Your task to perform on an android device: What's the news in Barbados? Image 0: 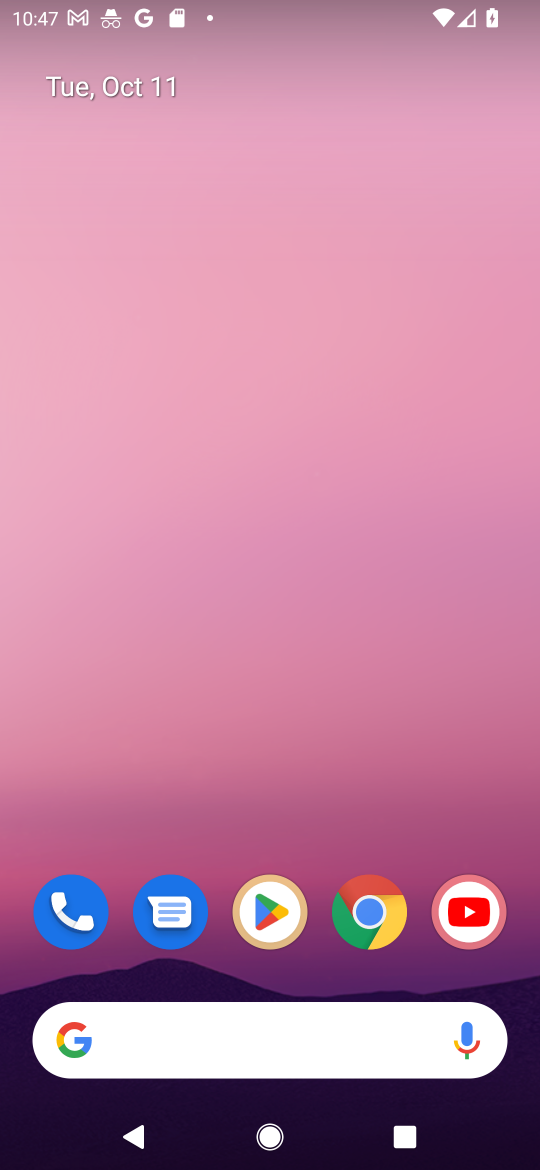
Step 0: click (366, 913)
Your task to perform on an android device: What's the news in Barbados? Image 1: 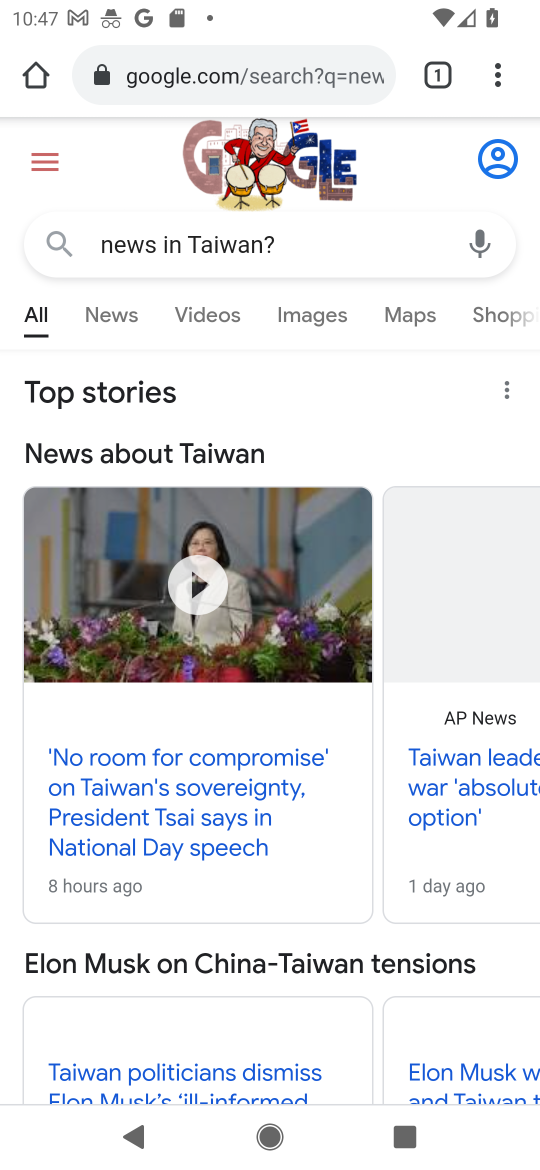
Step 1: click (250, 55)
Your task to perform on an android device: What's the news in Barbados? Image 2: 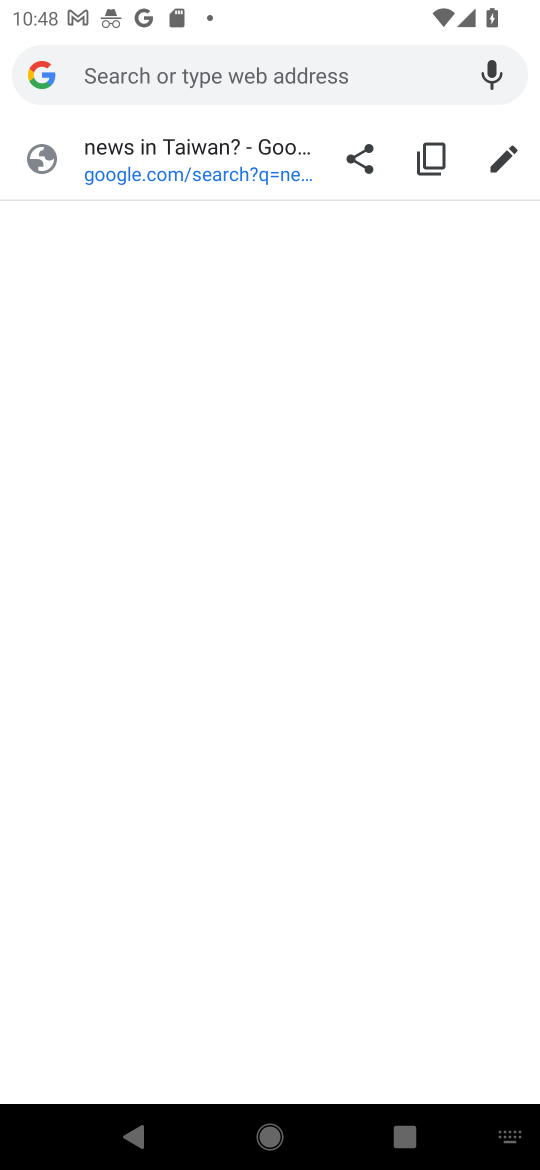
Step 2: type "news in barbados"
Your task to perform on an android device: What's the news in Barbados? Image 3: 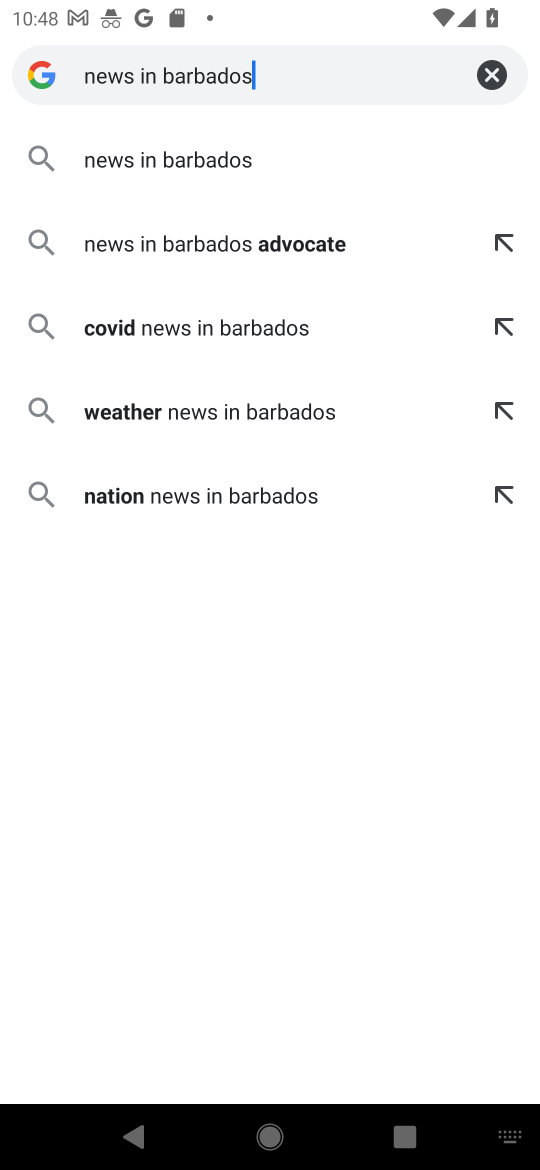
Step 3: click (114, 154)
Your task to perform on an android device: What's the news in Barbados? Image 4: 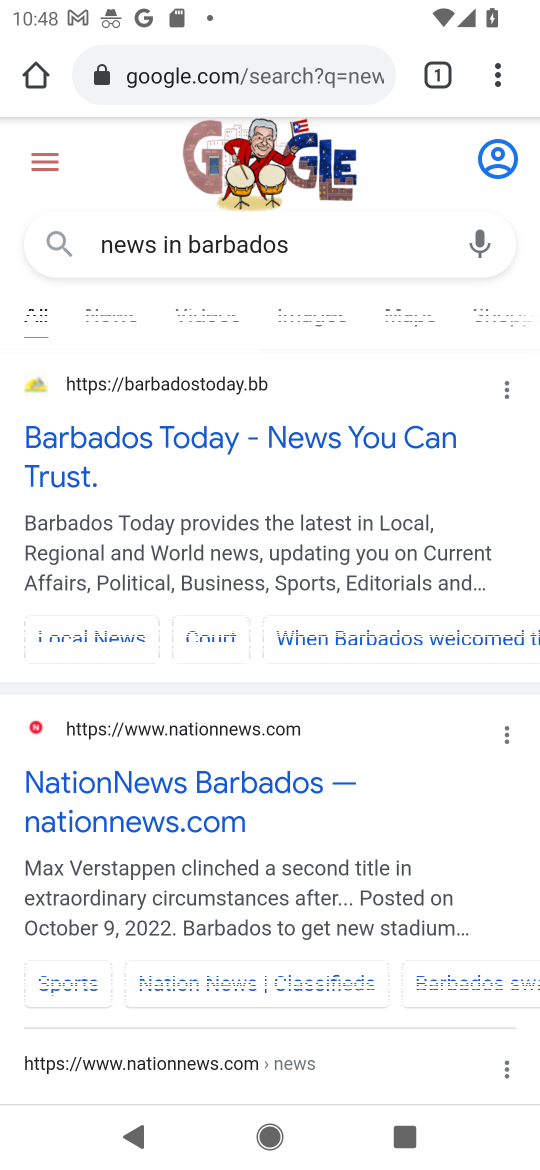
Step 4: click (119, 443)
Your task to perform on an android device: What's the news in Barbados? Image 5: 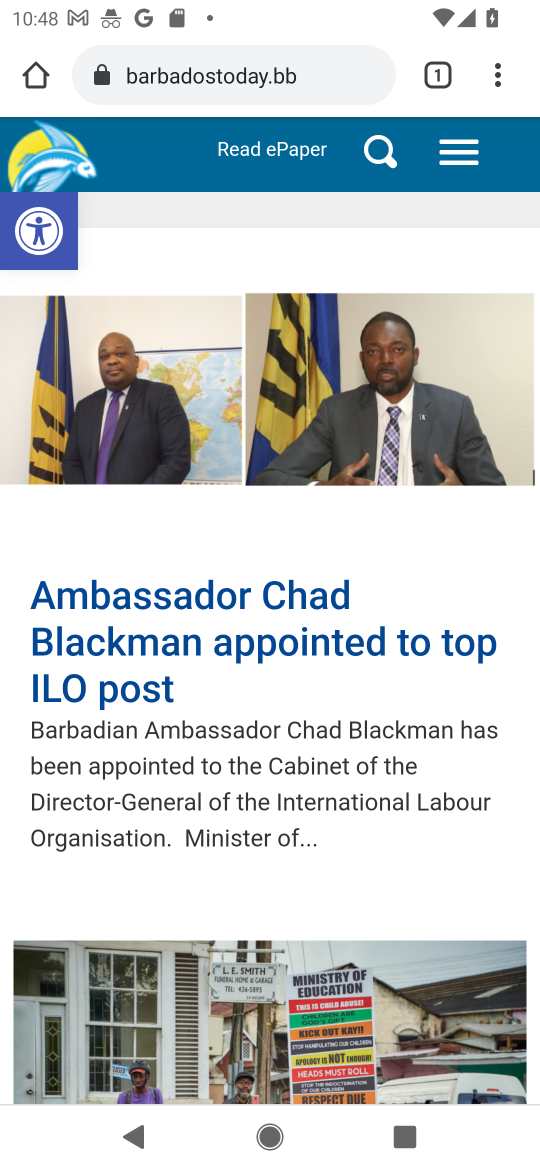
Step 5: drag from (251, 678) to (251, 296)
Your task to perform on an android device: What's the news in Barbados? Image 6: 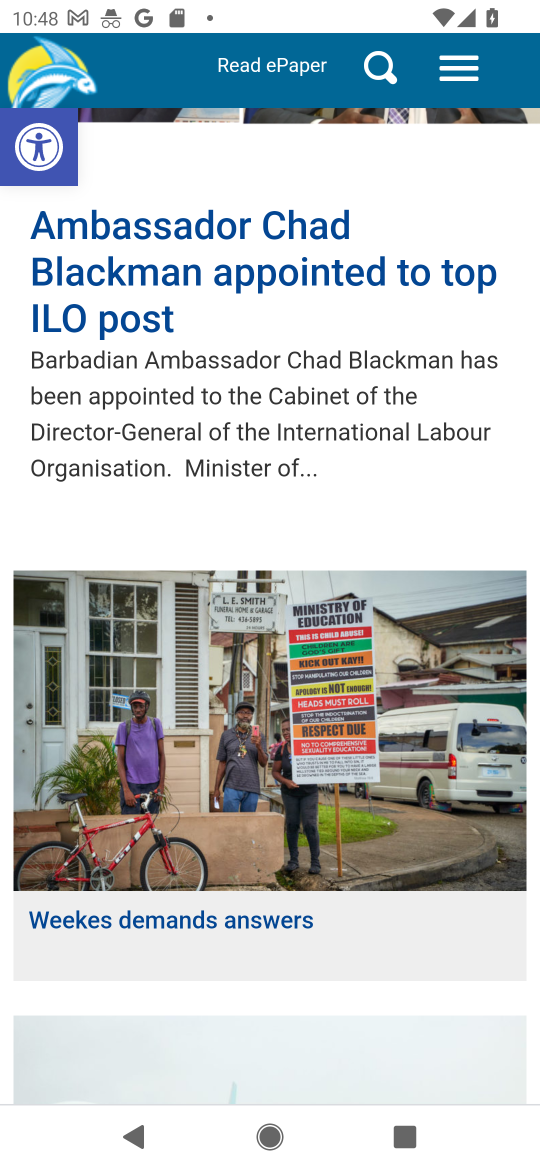
Step 6: drag from (292, 999) to (278, 275)
Your task to perform on an android device: What's the news in Barbados? Image 7: 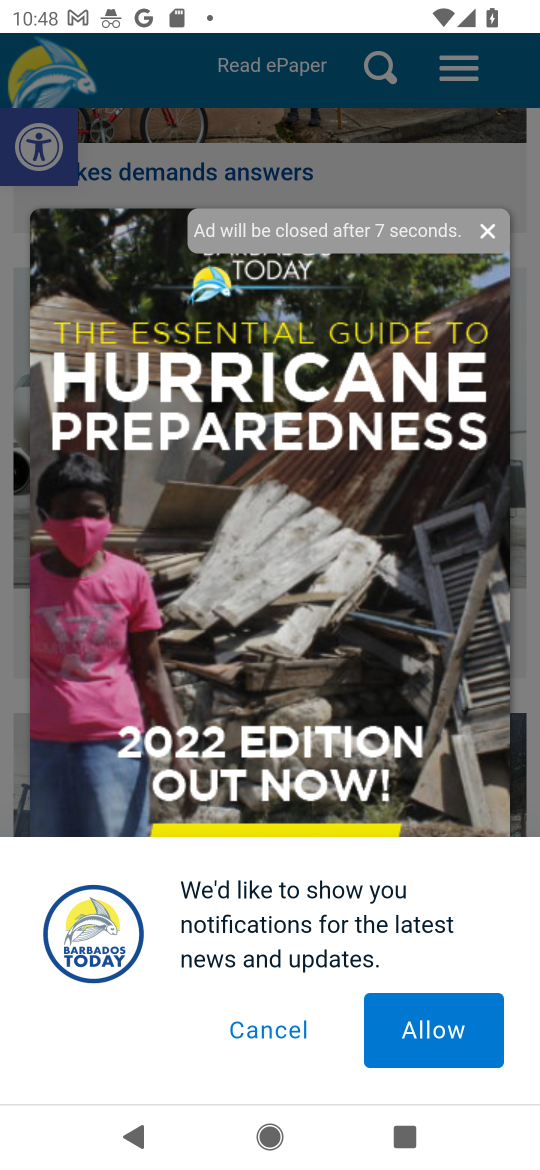
Step 7: click (481, 229)
Your task to perform on an android device: What's the news in Barbados? Image 8: 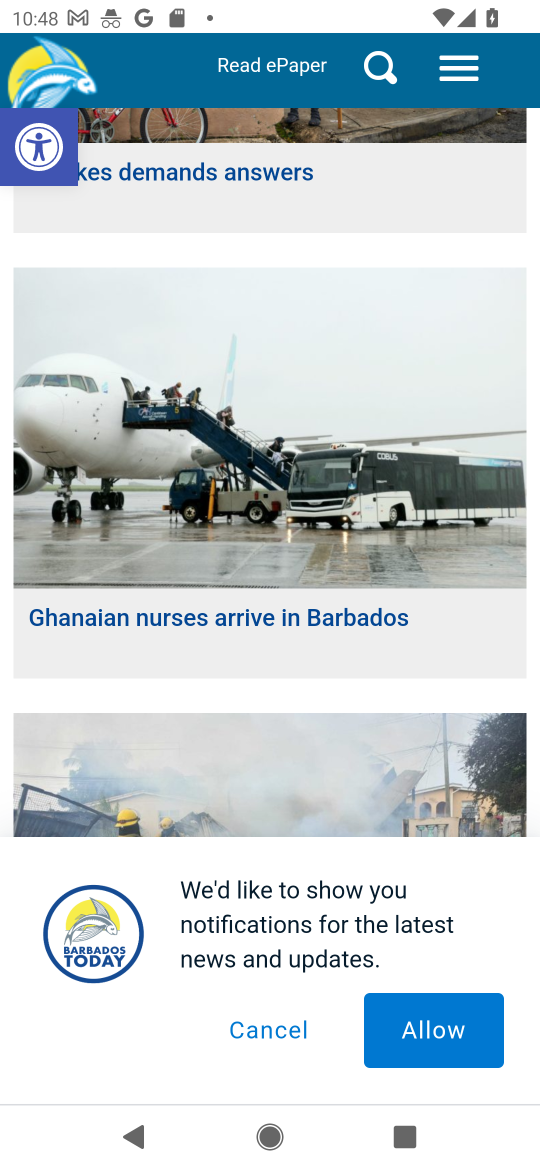
Step 8: click (170, 614)
Your task to perform on an android device: What's the news in Barbados? Image 9: 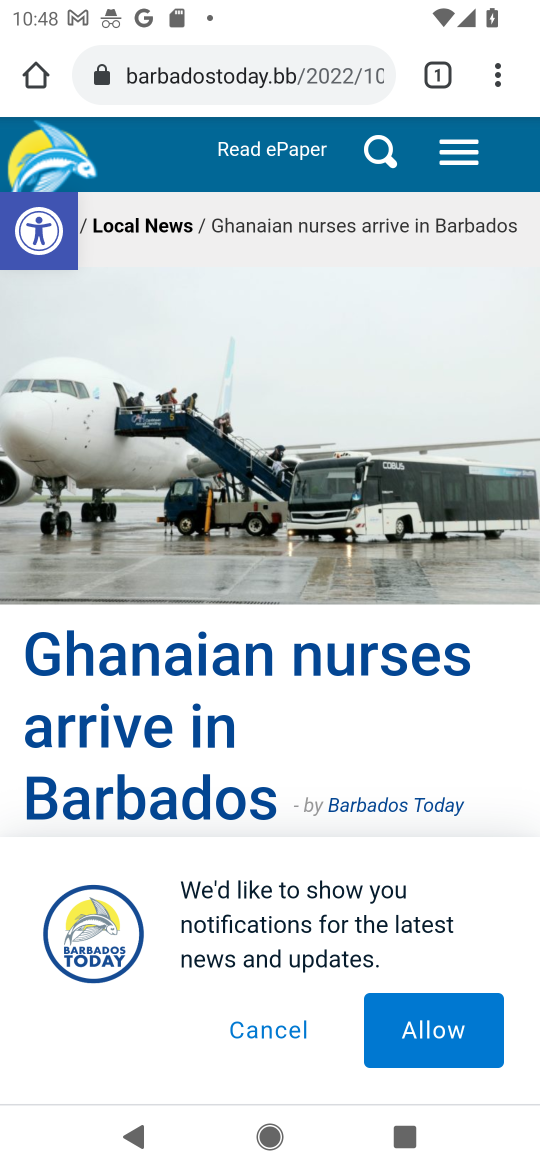
Step 9: drag from (243, 848) to (230, 388)
Your task to perform on an android device: What's the news in Barbados? Image 10: 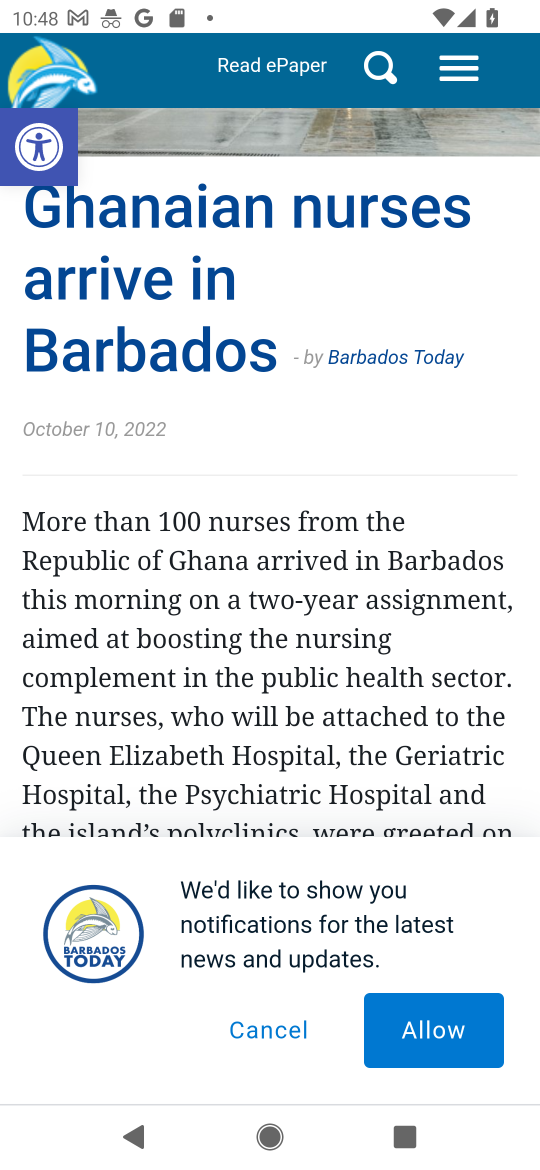
Step 10: click (268, 1029)
Your task to perform on an android device: What's the news in Barbados? Image 11: 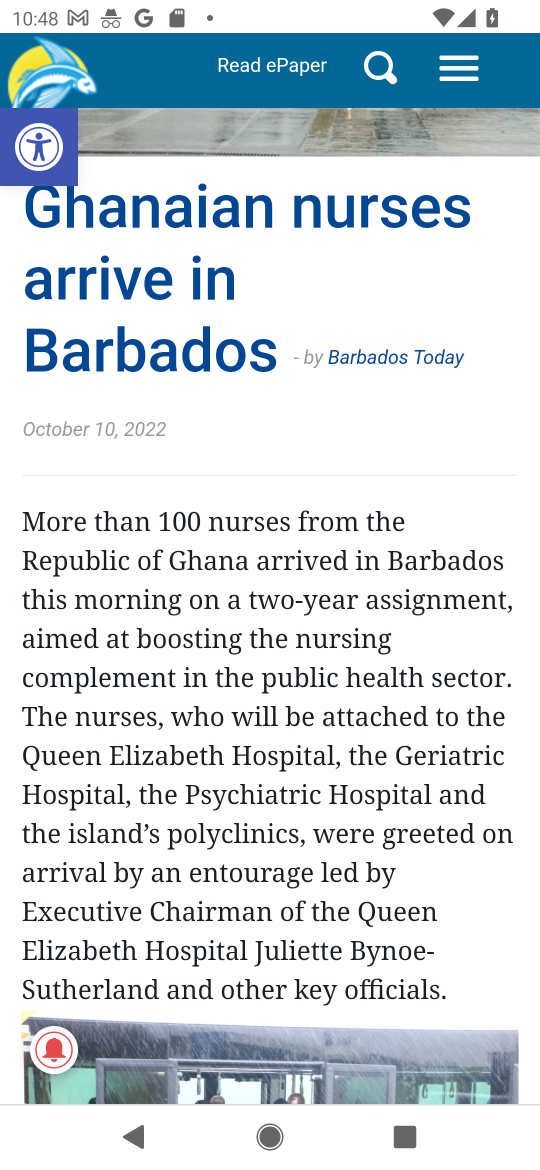
Step 11: task complete